Your task to perform on an android device: Go to Amazon Image 0: 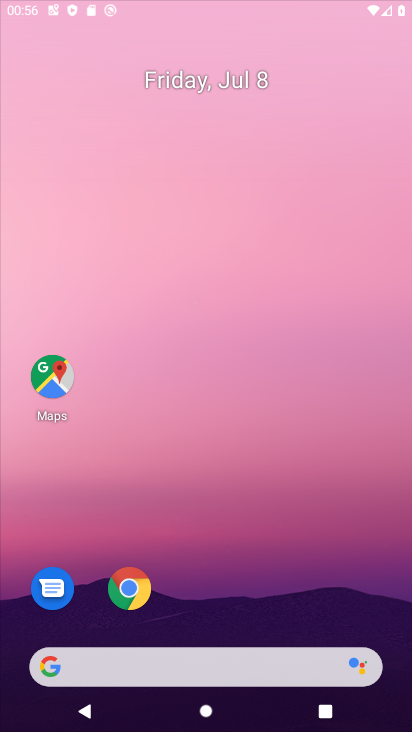
Step 0: click (191, 189)
Your task to perform on an android device: Go to Amazon Image 1: 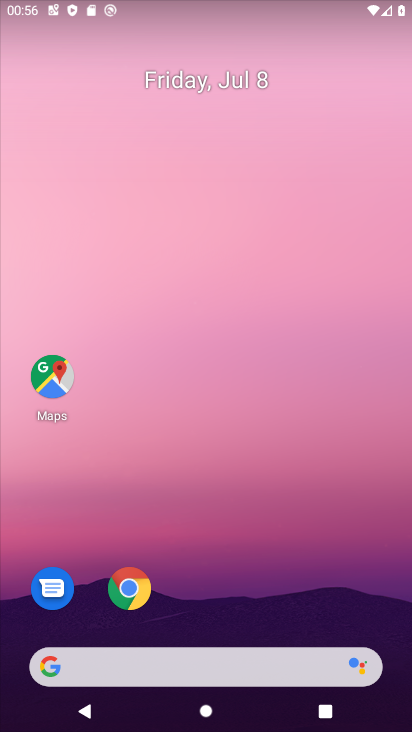
Step 1: drag from (166, 438) to (312, 86)
Your task to perform on an android device: Go to Amazon Image 2: 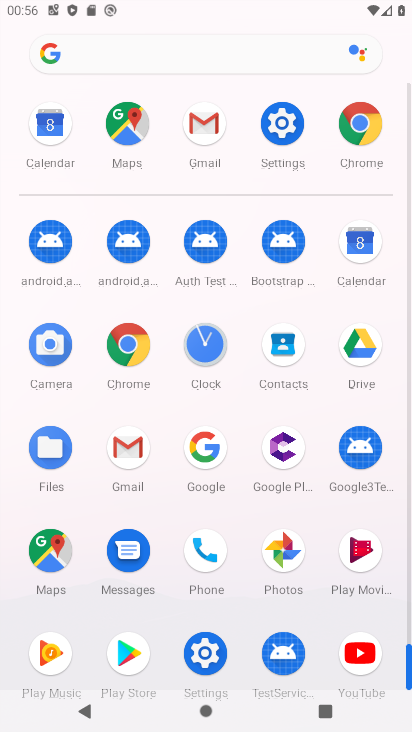
Step 2: click (125, 338)
Your task to perform on an android device: Go to Amazon Image 3: 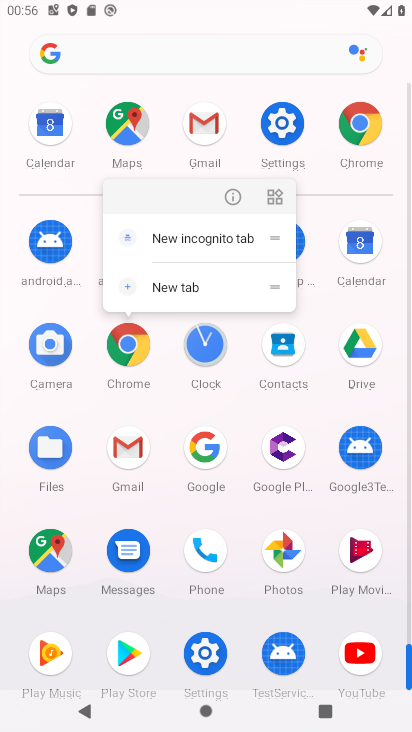
Step 3: click (229, 193)
Your task to perform on an android device: Go to Amazon Image 4: 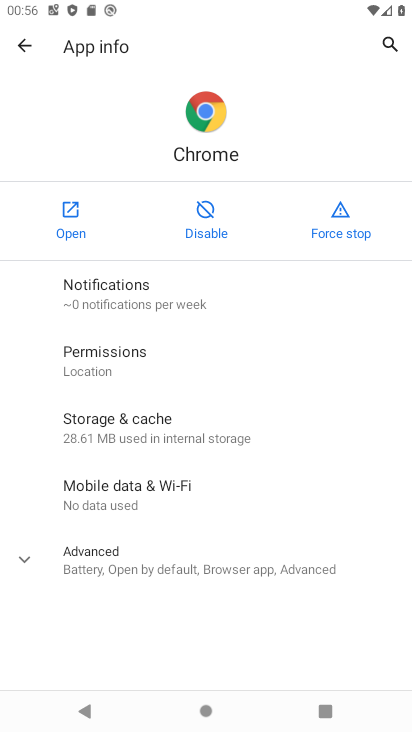
Step 4: click (64, 214)
Your task to perform on an android device: Go to Amazon Image 5: 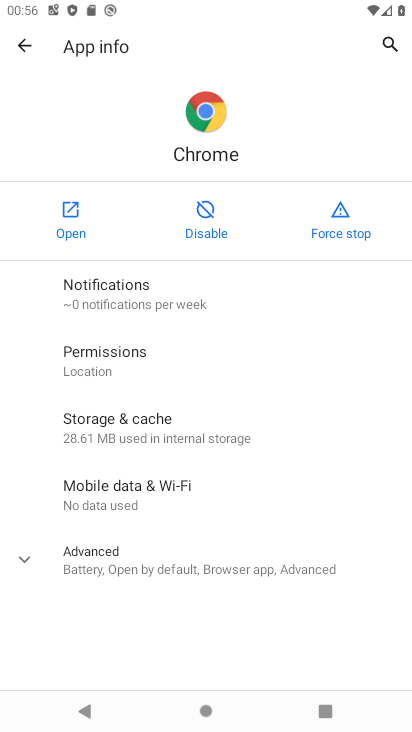
Step 5: click (64, 214)
Your task to perform on an android device: Go to Amazon Image 6: 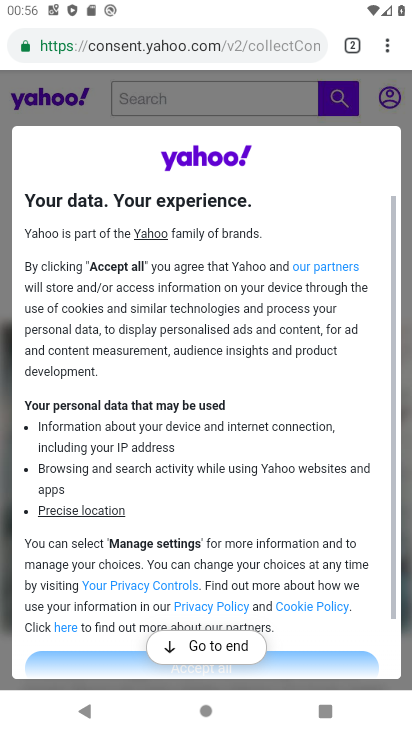
Step 6: drag from (259, 493) to (220, 173)
Your task to perform on an android device: Go to Amazon Image 7: 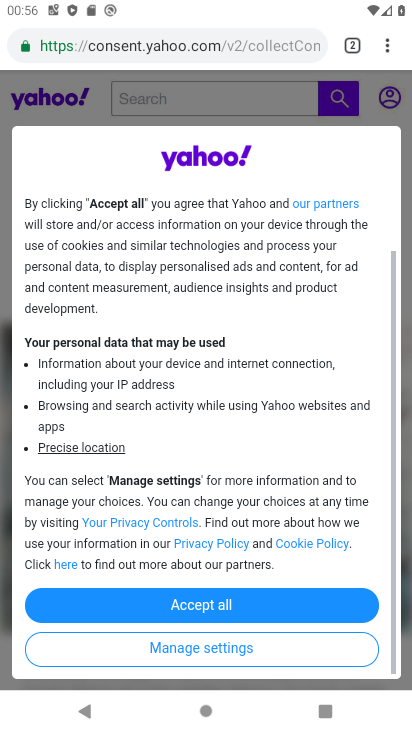
Step 7: click (354, 49)
Your task to perform on an android device: Go to Amazon Image 8: 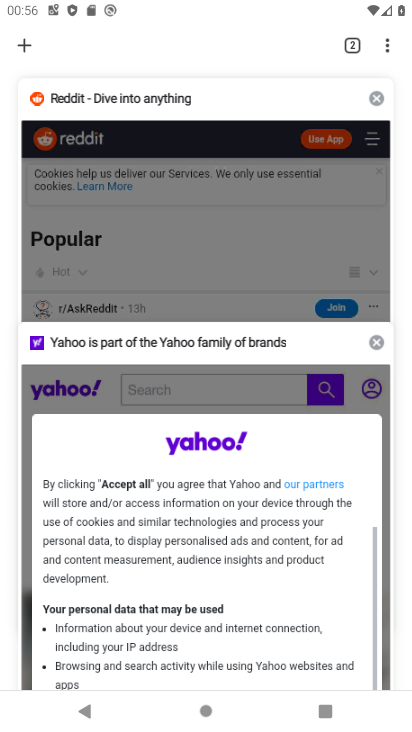
Step 8: click (353, 48)
Your task to perform on an android device: Go to Amazon Image 9: 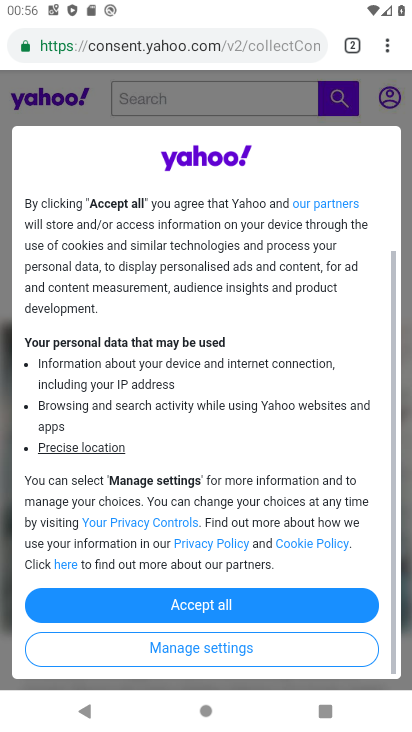
Step 9: click (353, 48)
Your task to perform on an android device: Go to Amazon Image 10: 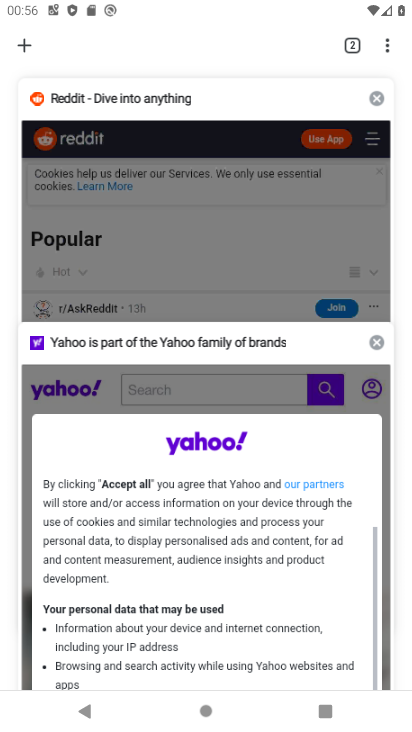
Step 10: click (374, 345)
Your task to perform on an android device: Go to Amazon Image 11: 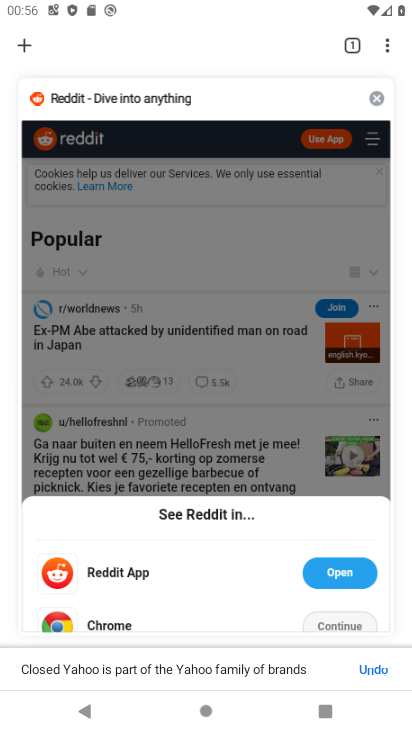
Step 11: click (20, 41)
Your task to perform on an android device: Go to Amazon Image 12: 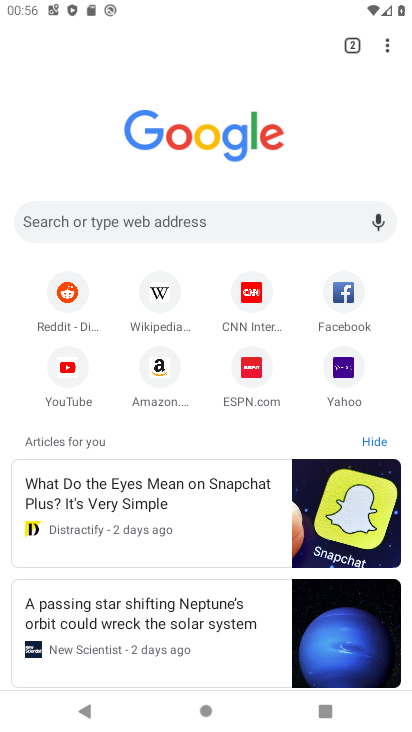
Step 12: click (153, 360)
Your task to perform on an android device: Go to Amazon Image 13: 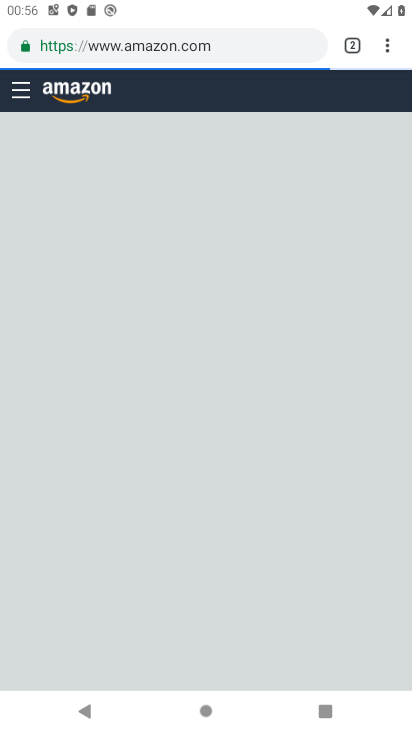
Step 13: task complete